Your task to perform on an android device: Open the web browser Image 0: 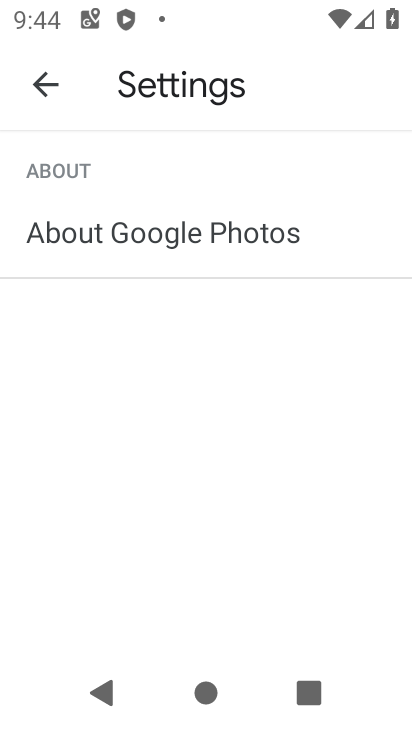
Step 0: press home button
Your task to perform on an android device: Open the web browser Image 1: 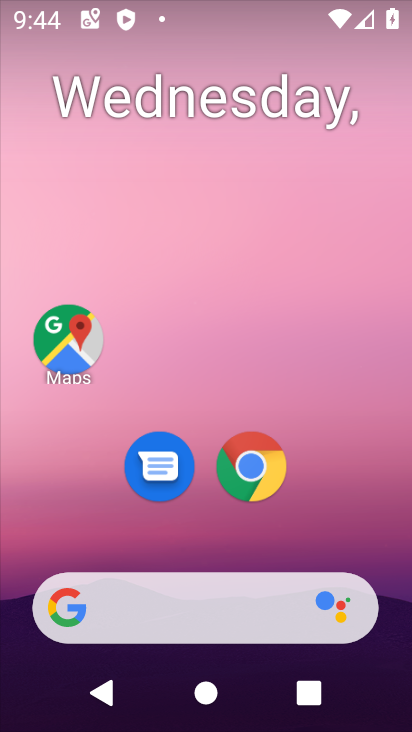
Step 1: click (278, 472)
Your task to perform on an android device: Open the web browser Image 2: 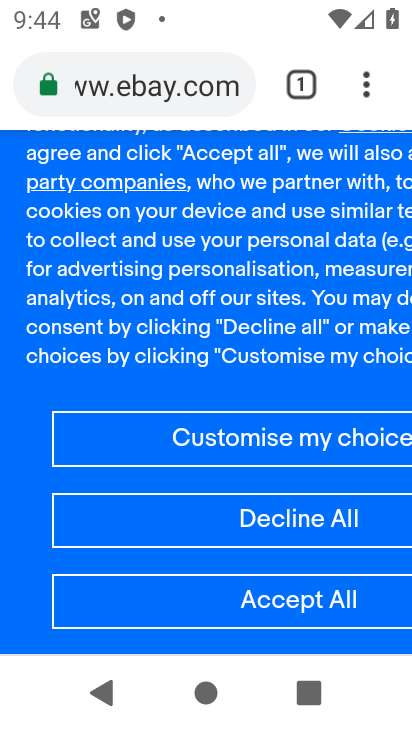
Step 2: task complete